Your task to perform on an android device: What's the weather today? Image 0: 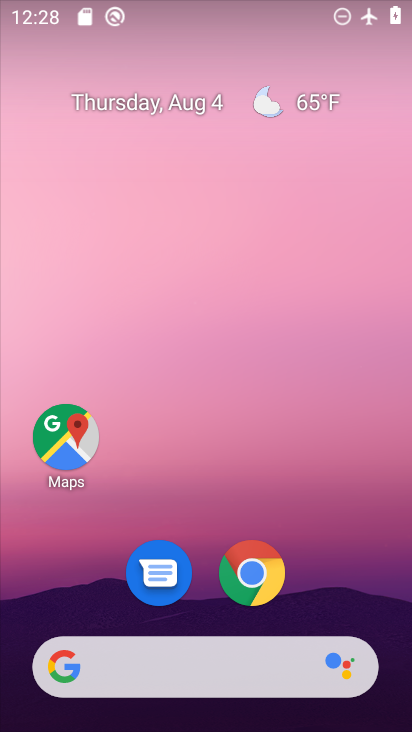
Step 0: click (336, 94)
Your task to perform on an android device: What's the weather today? Image 1: 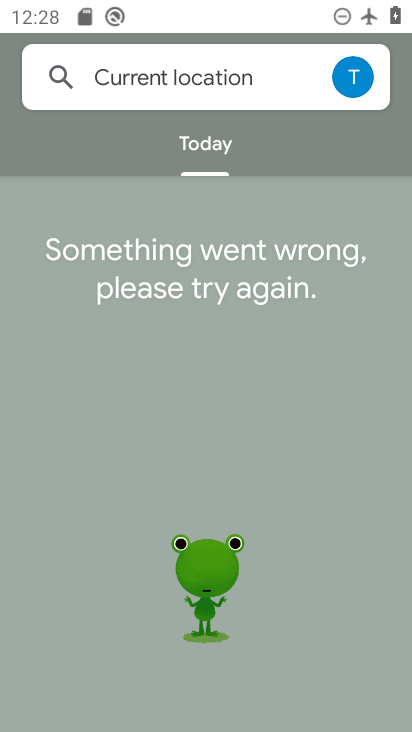
Step 1: task complete